Your task to perform on an android device: Go to Android settings Image 0: 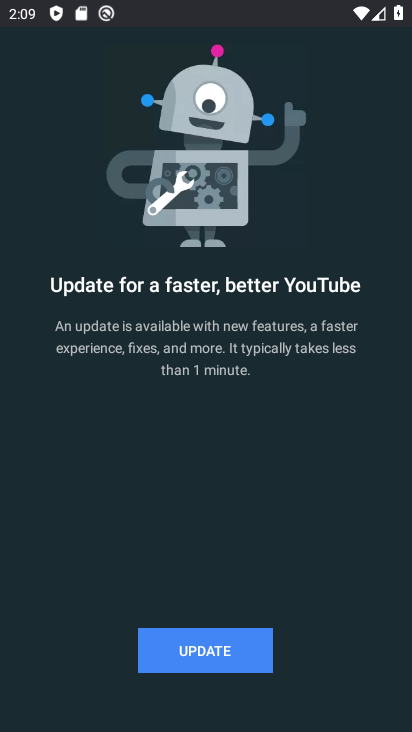
Step 0: press home button
Your task to perform on an android device: Go to Android settings Image 1: 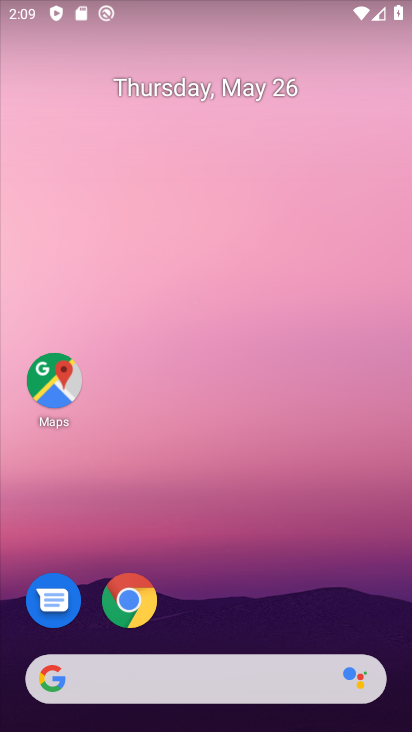
Step 1: drag from (300, 598) to (279, 112)
Your task to perform on an android device: Go to Android settings Image 2: 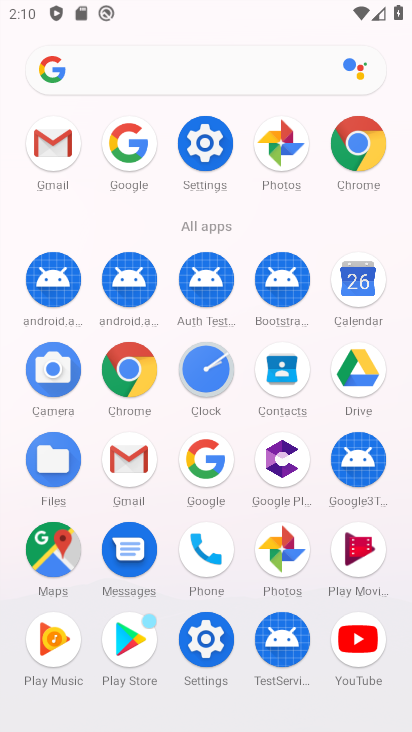
Step 2: click (195, 139)
Your task to perform on an android device: Go to Android settings Image 3: 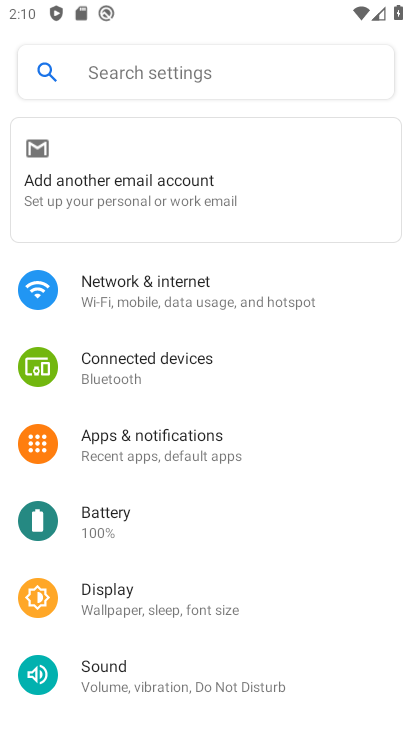
Step 3: task complete